Your task to perform on an android device: turn on improve location accuracy Image 0: 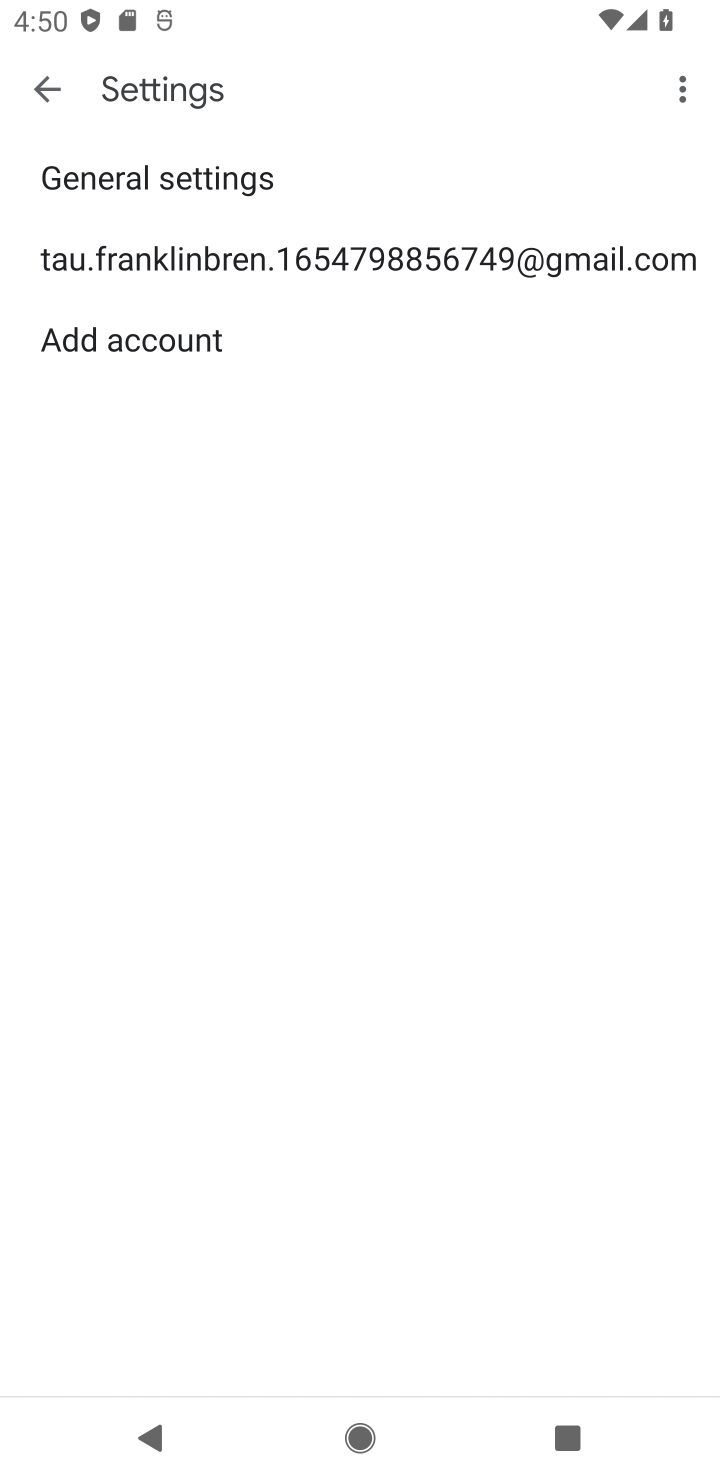
Step 0: press home button
Your task to perform on an android device: turn on improve location accuracy Image 1: 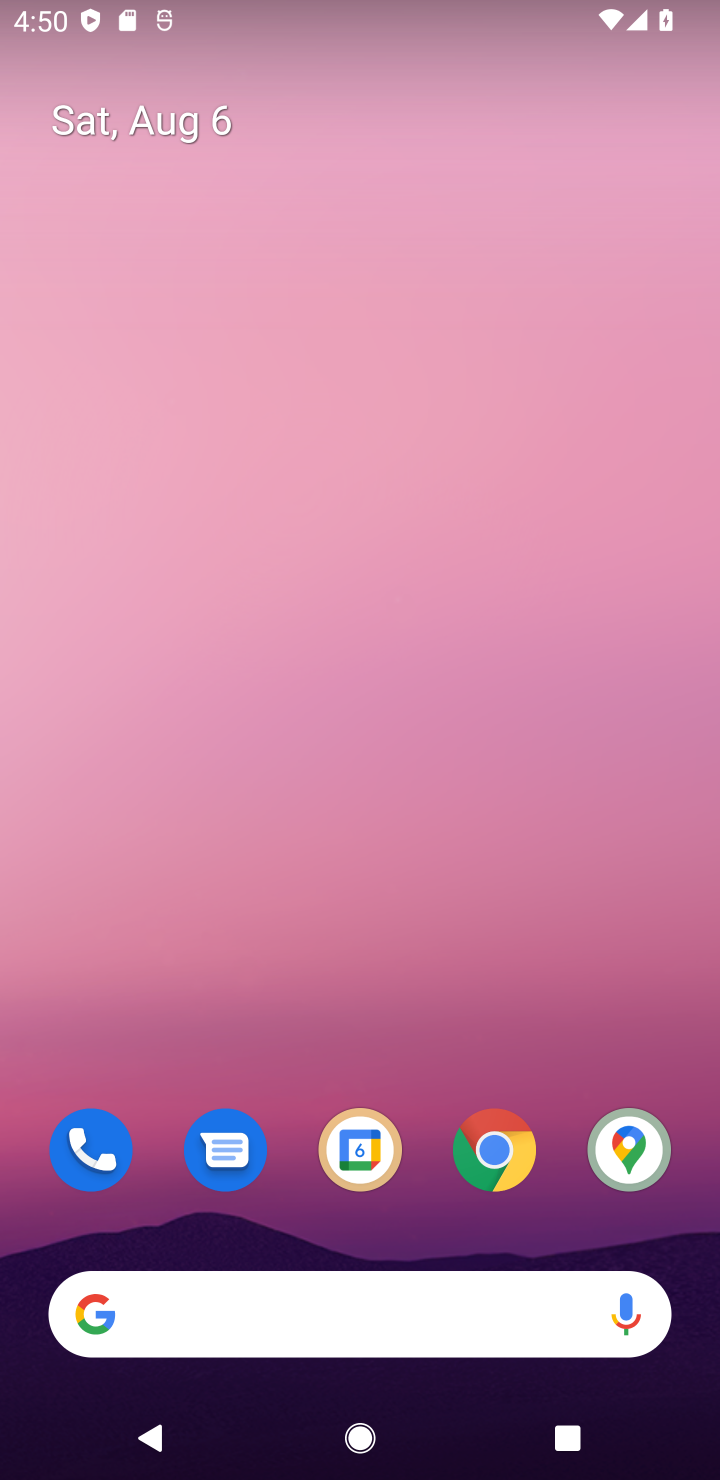
Step 1: drag from (455, 945) to (477, 93)
Your task to perform on an android device: turn on improve location accuracy Image 2: 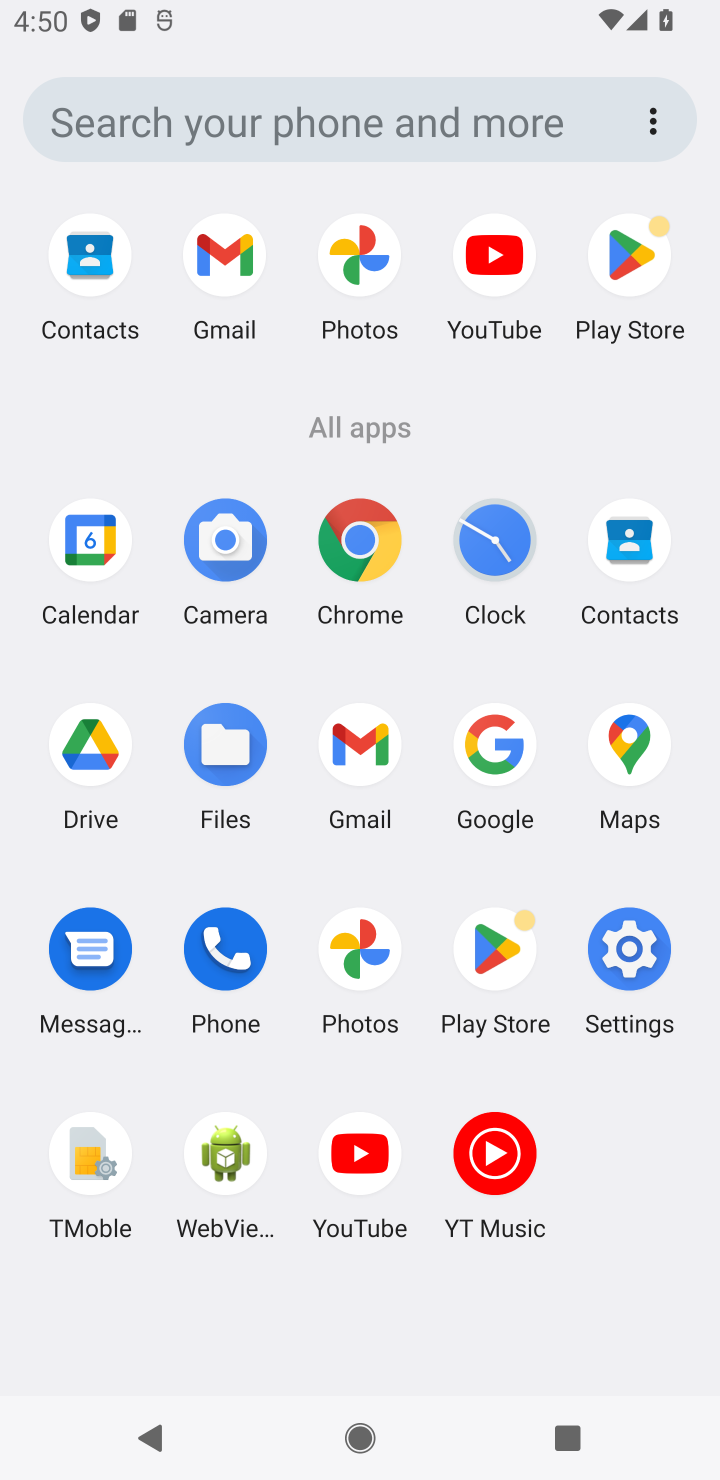
Step 2: click (609, 953)
Your task to perform on an android device: turn on improve location accuracy Image 3: 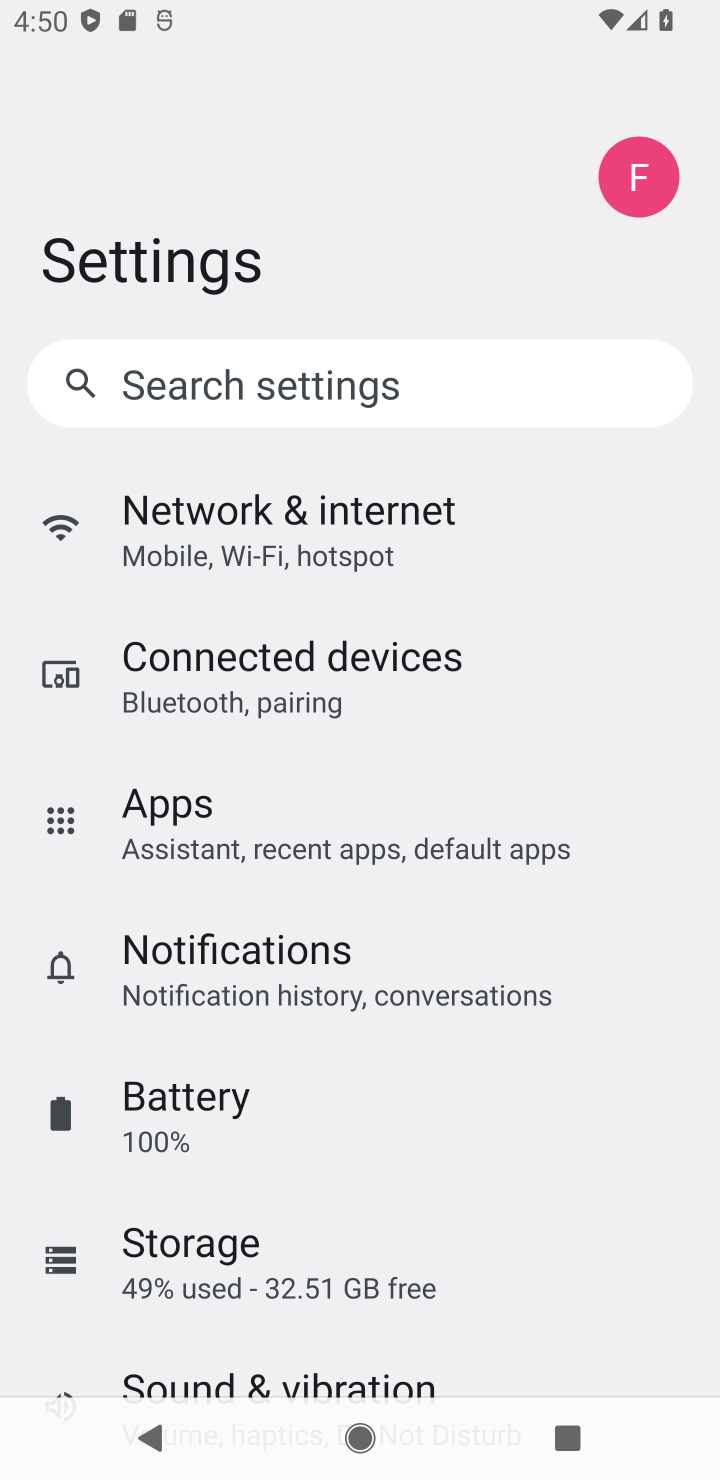
Step 3: drag from (239, 1194) to (215, 261)
Your task to perform on an android device: turn on improve location accuracy Image 4: 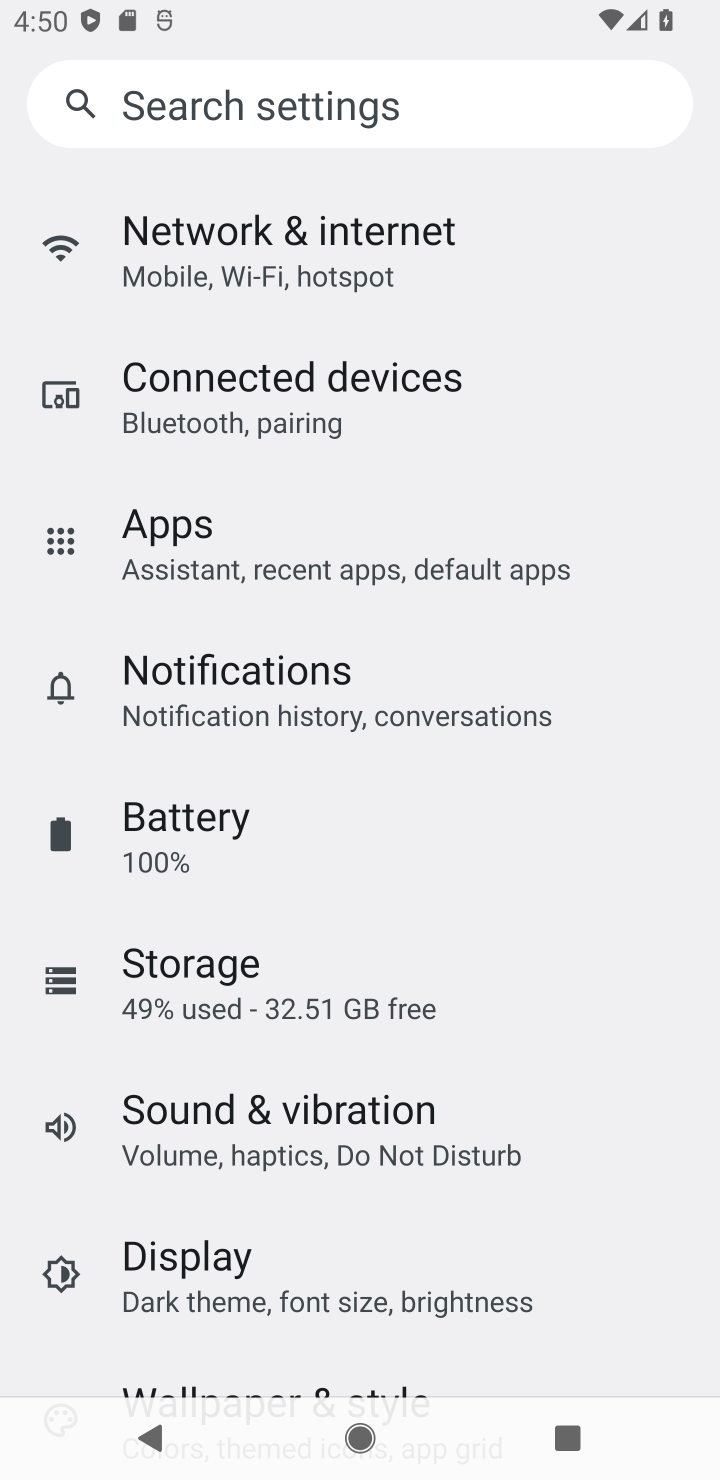
Step 4: drag from (361, 1278) to (420, 384)
Your task to perform on an android device: turn on improve location accuracy Image 5: 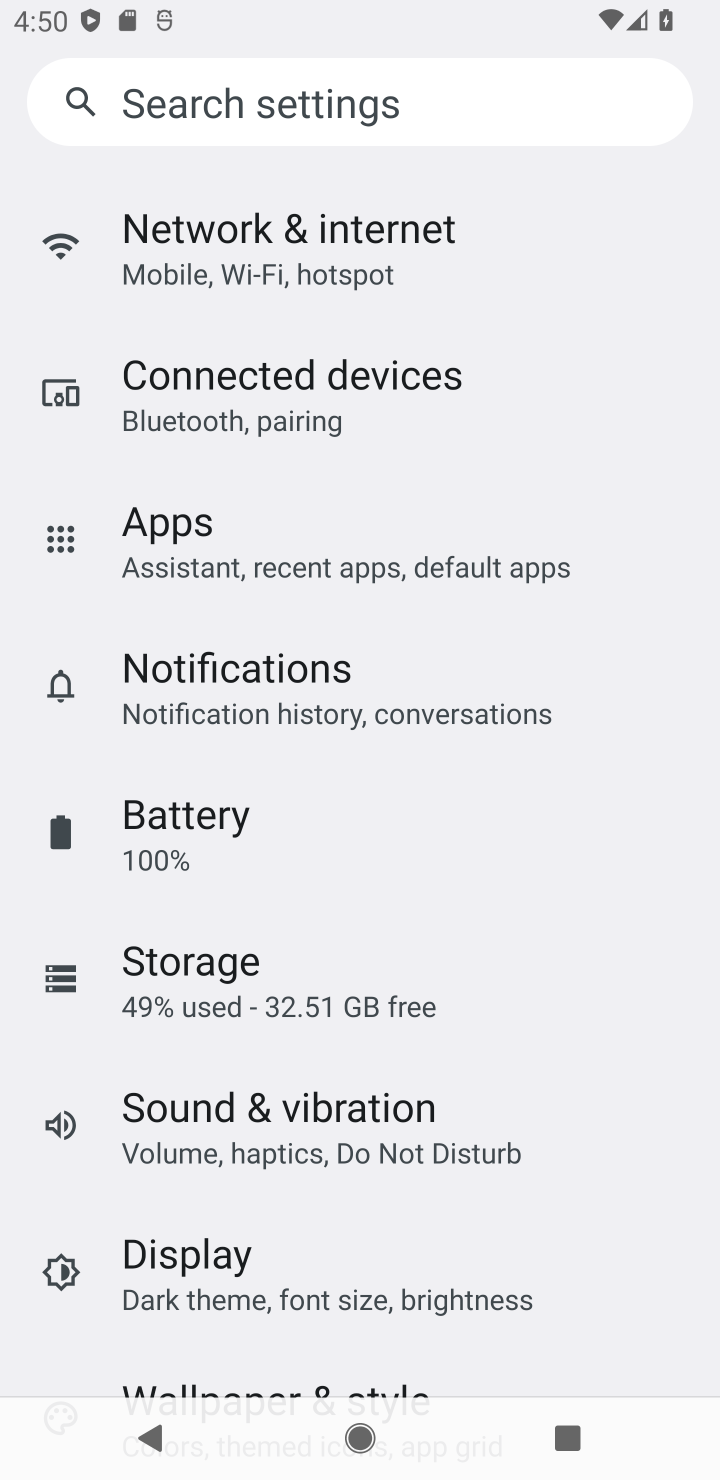
Step 5: drag from (332, 960) to (309, 25)
Your task to perform on an android device: turn on improve location accuracy Image 6: 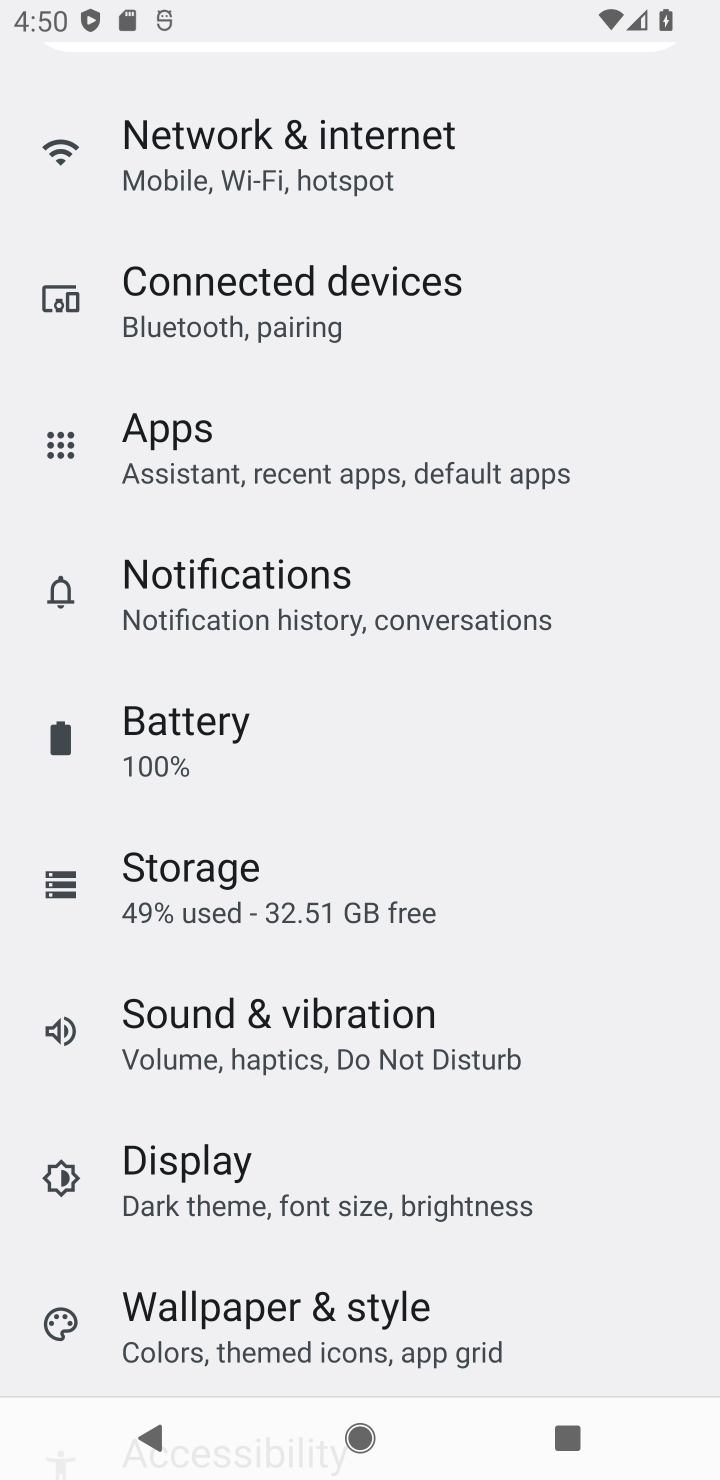
Step 6: drag from (342, 1220) to (378, 507)
Your task to perform on an android device: turn on improve location accuracy Image 7: 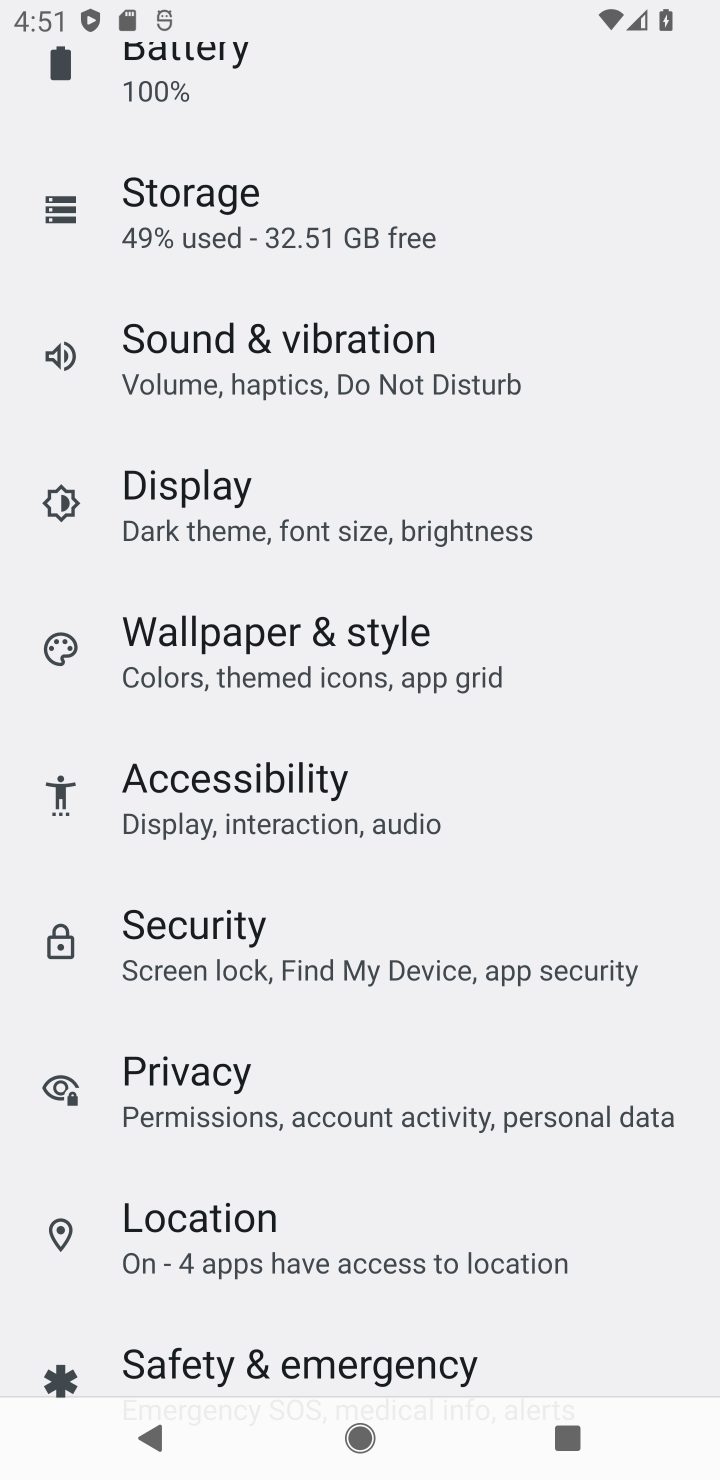
Step 7: click (320, 1209)
Your task to perform on an android device: turn on improve location accuracy Image 8: 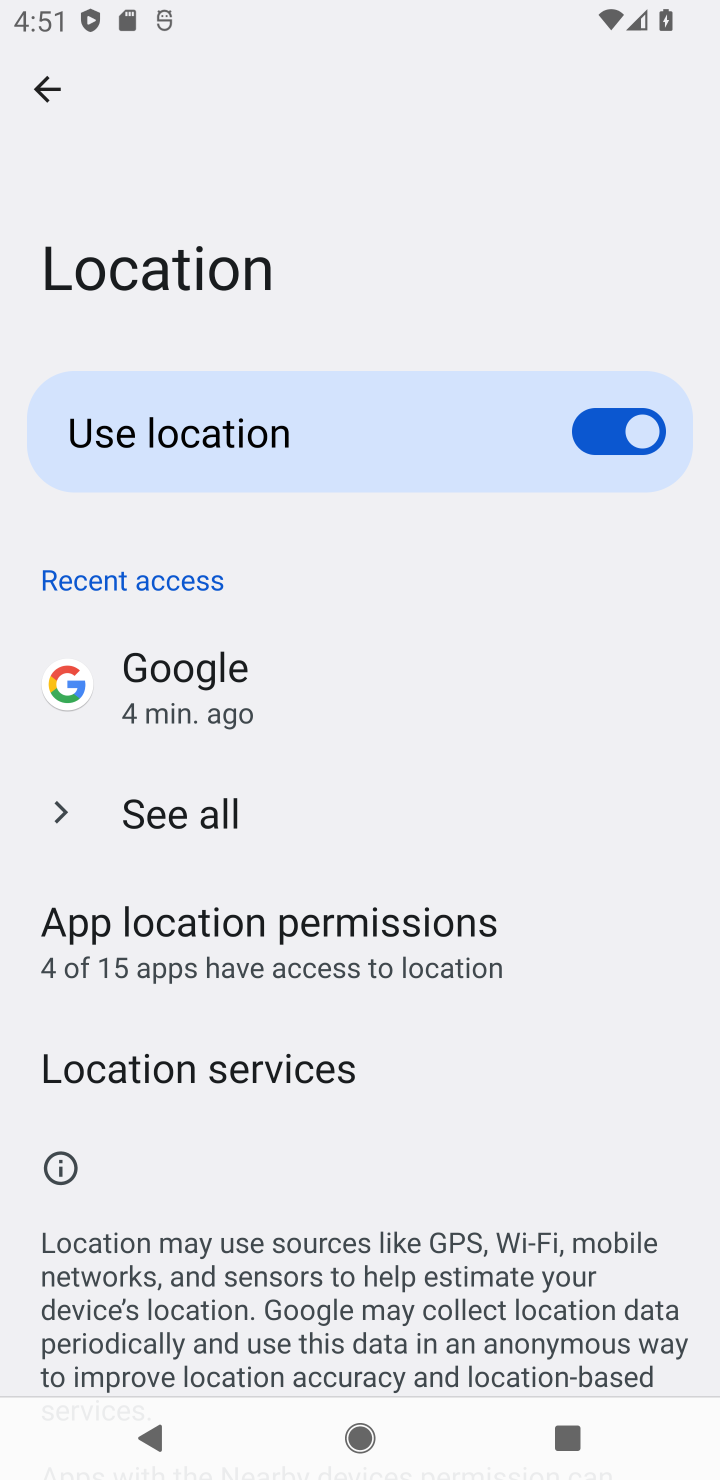
Step 8: click (78, 1083)
Your task to perform on an android device: turn on improve location accuracy Image 9: 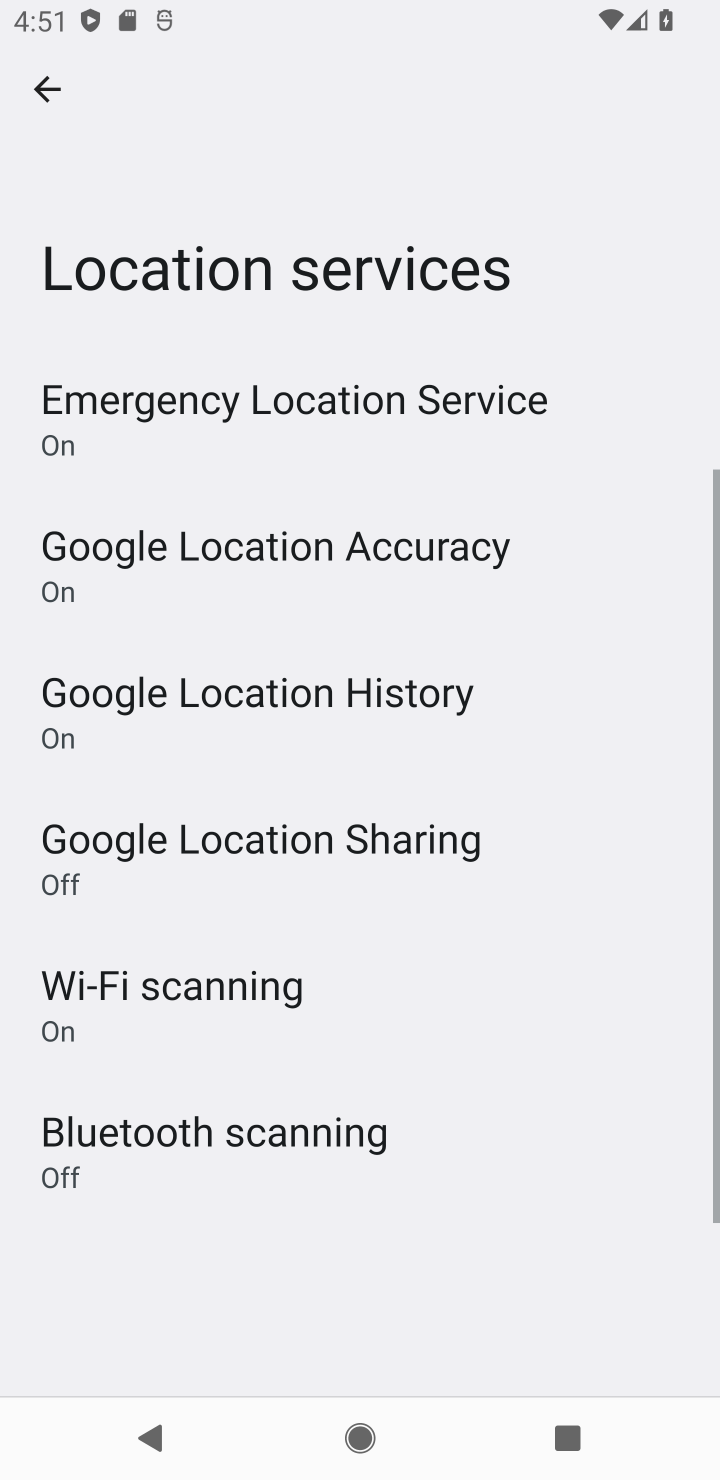
Step 9: click (415, 548)
Your task to perform on an android device: turn on improve location accuracy Image 10: 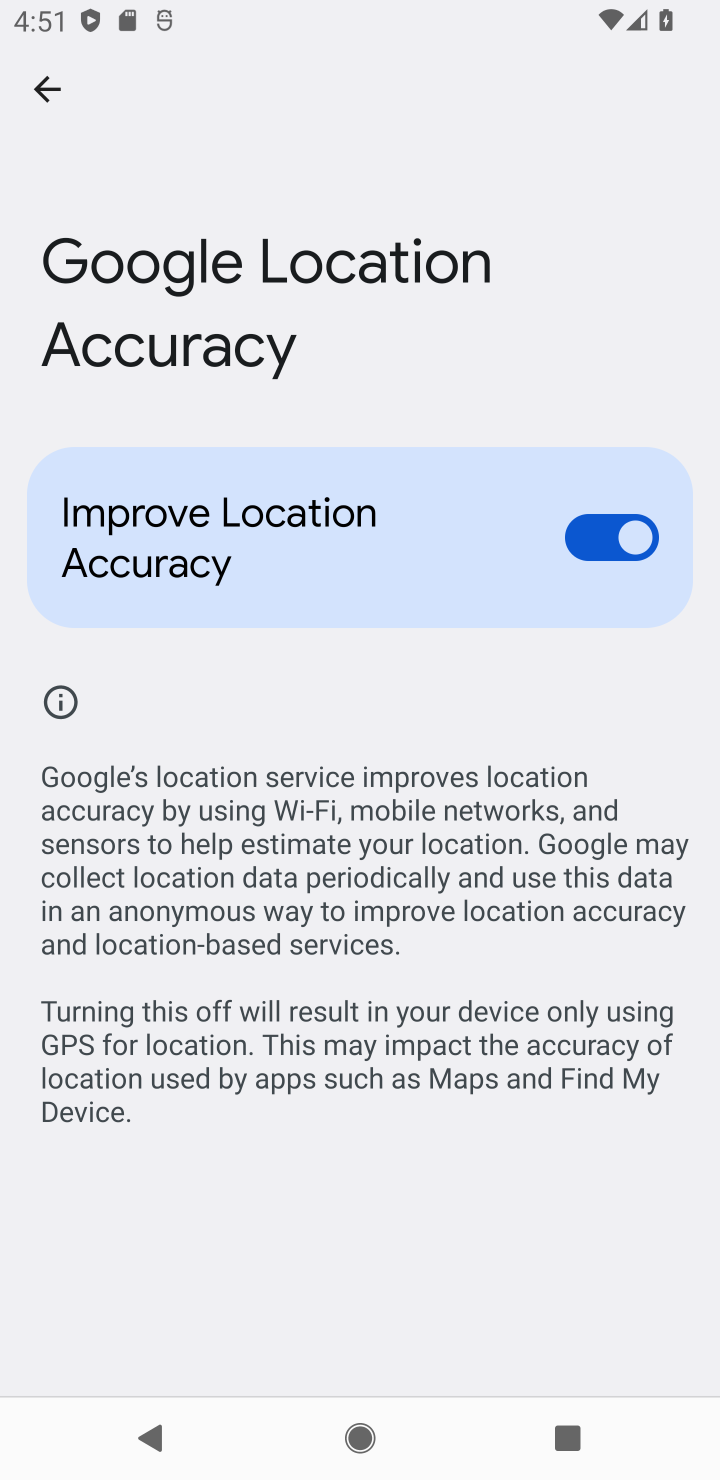
Step 10: task complete